Your task to perform on an android device: empty trash in the gmail app Image 0: 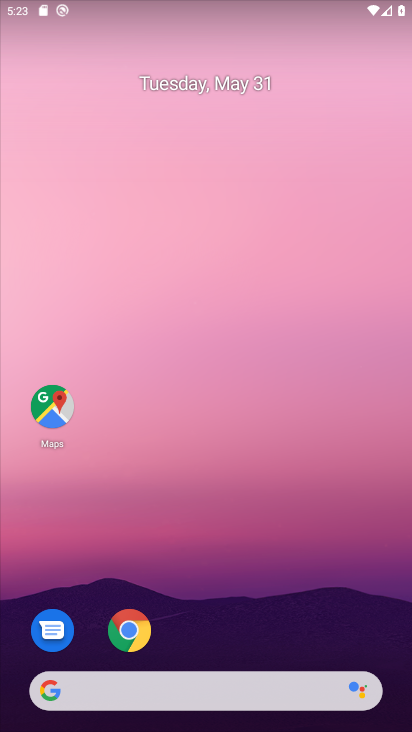
Step 0: drag from (216, 609) to (292, 145)
Your task to perform on an android device: empty trash in the gmail app Image 1: 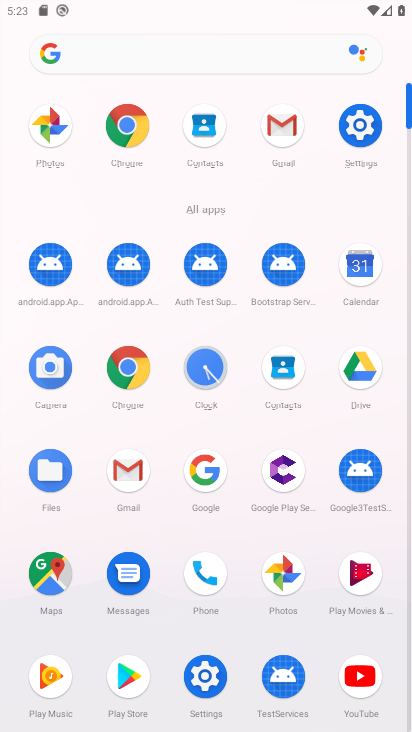
Step 1: click (263, 124)
Your task to perform on an android device: empty trash in the gmail app Image 2: 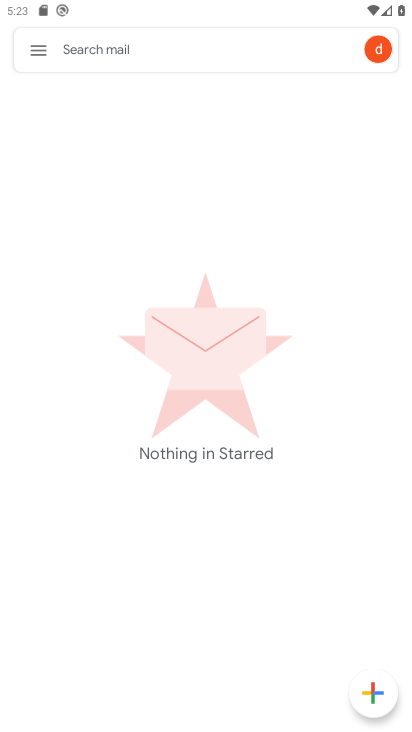
Step 2: click (39, 42)
Your task to perform on an android device: empty trash in the gmail app Image 3: 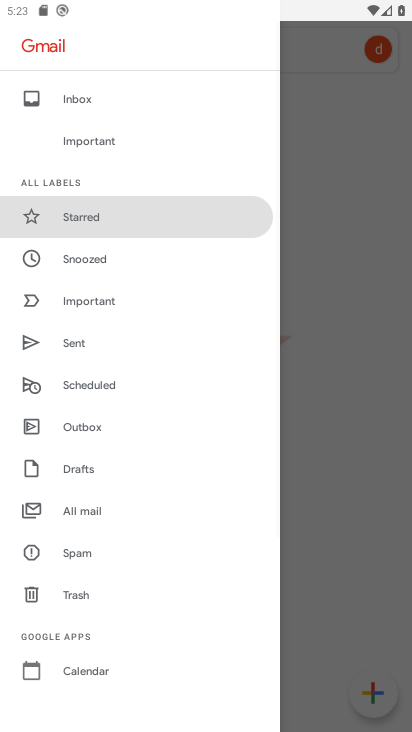
Step 3: click (65, 609)
Your task to perform on an android device: empty trash in the gmail app Image 4: 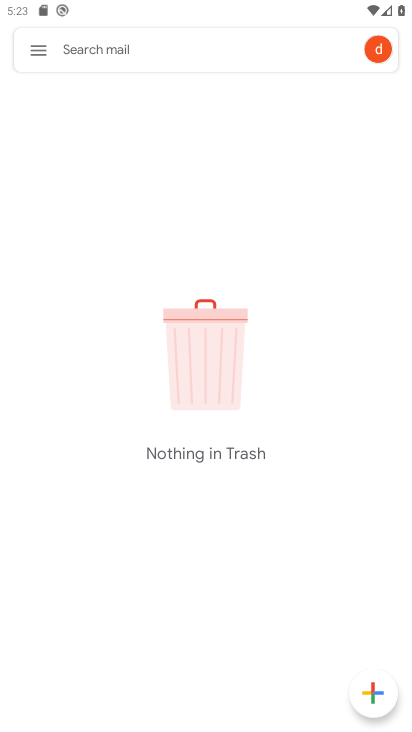
Step 4: task complete